Your task to perform on an android device: Open settings Image 0: 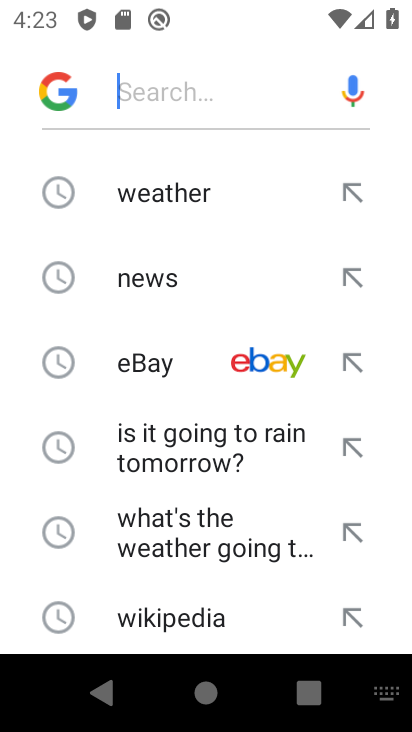
Step 0: press home button
Your task to perform on an android device: Open settings Image 1: 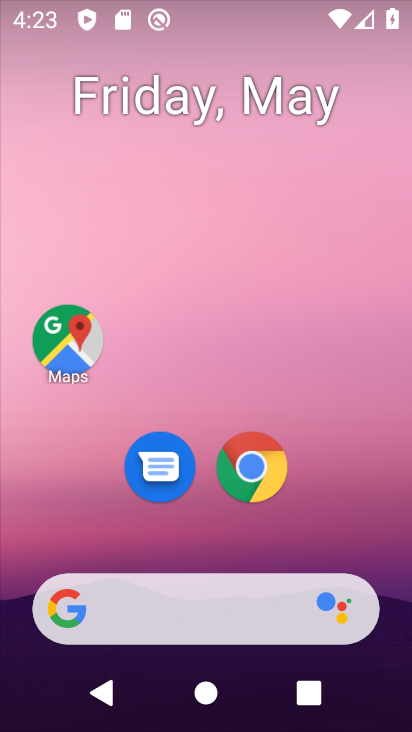
Step 1: drag from (352, 520) to (301, 58)
Your task to perform on an android device: Open settings Image 2: 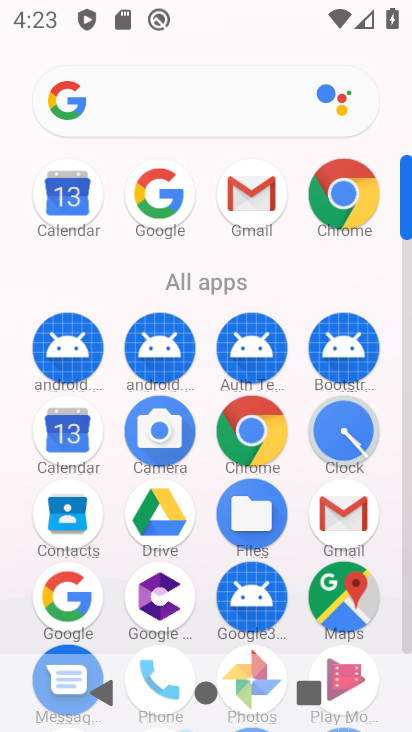
Step 2: drag from (328, 569) to (407, 318)
Your task to perform on an android device: Open settings Image 3: 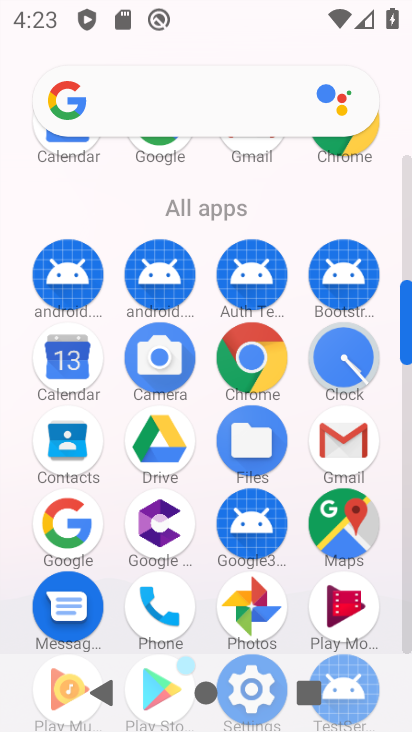
Step 3: click (251, 512)
Your task to perform on an android device: Open settings Image 4: 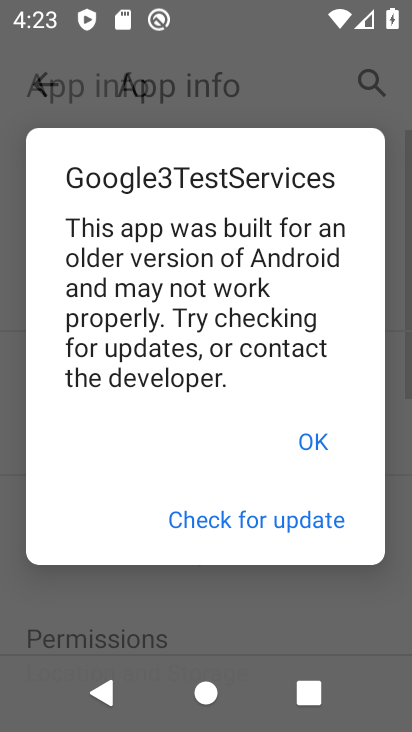
Step 4: press home button
Your task to perform on an android device: Open settings Image 5: 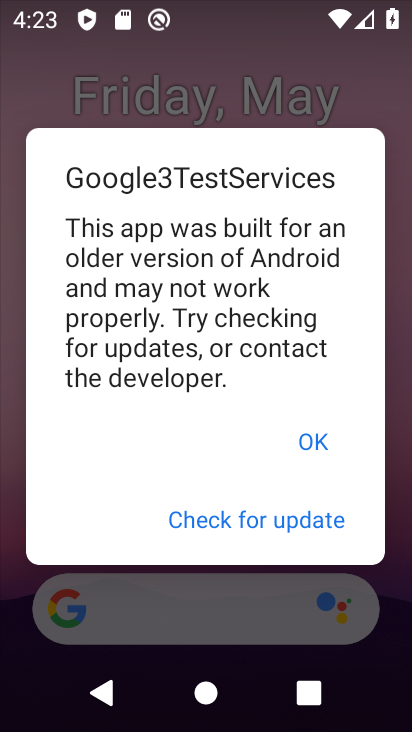
Step 5: click (313, 433)
Your task to perform on an android device: Open settings Image 6: 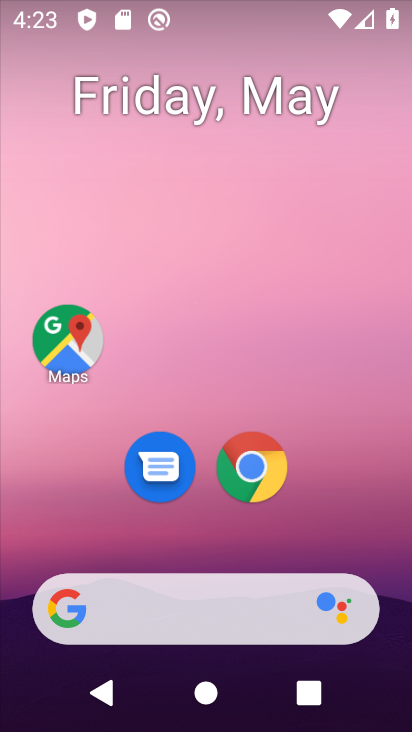
Step 6: drag from (344, 470) to (300, 30)
Your task to perform on an android device: Open settings Image 7: 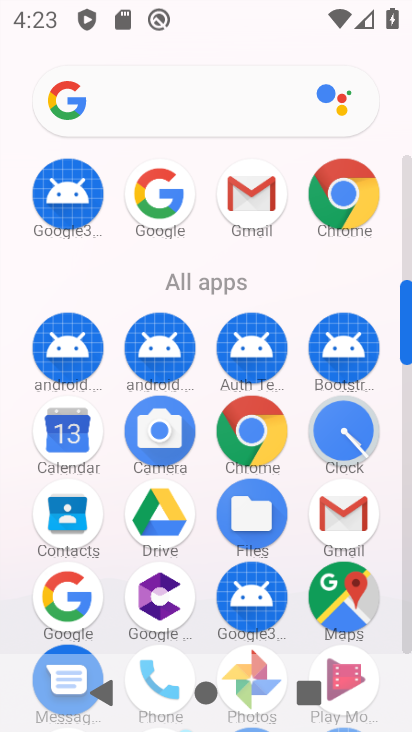
Step 7: drag from (206, 644) to (256, 283)
Your task to perform on an android device: Open settings Image 8: 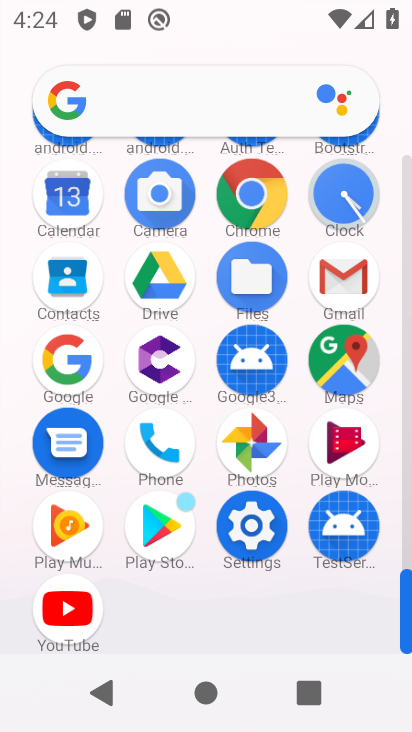
Step 8: click (252, 553)
Your task to perform on an android device: Open settings Image 9: 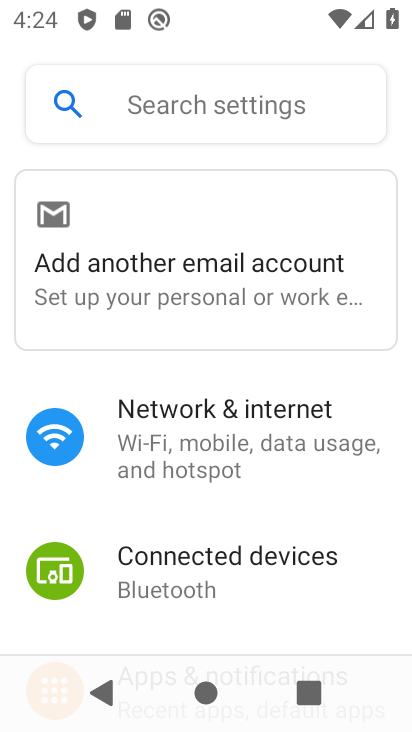
Step 9: task complete